Your task to perform on an android device: Go to Google Image 0: 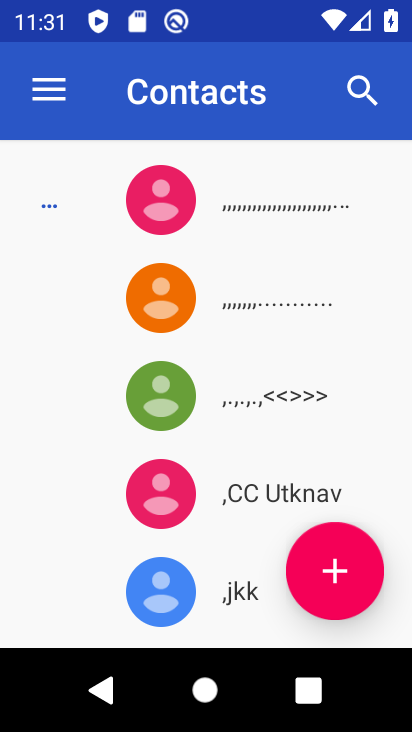
Step 0: press home button
Your task to perform on an android device: Go to Google Image 1: 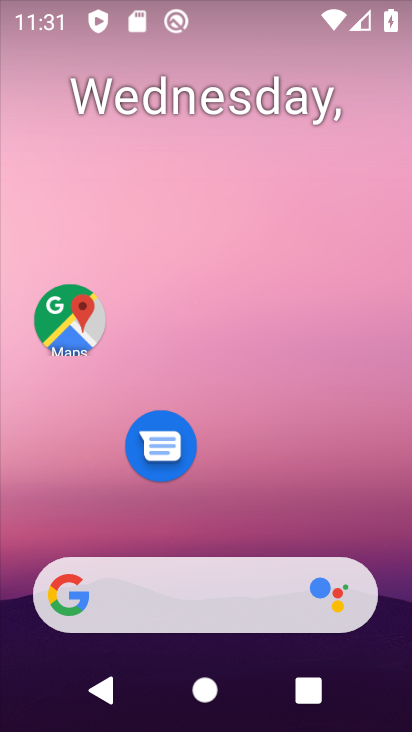
Step 1: drag from (255, 412) to (193, 63)
Your task to perform on an android device: Go to Google Image 2: 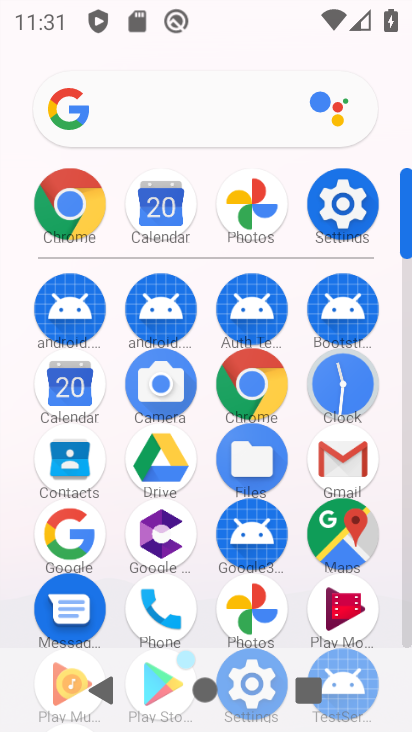
Step 2: click (61, 543)
Your task to perform on an android device: Go to Google Image 3: 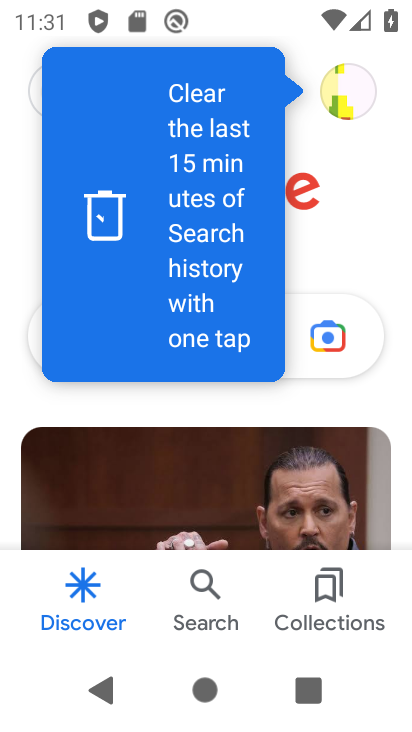
Step 3: task complete